Your task to perform on an android device: Add "logitech g pro" to the cart on newegg, then select checkout. Image 0: 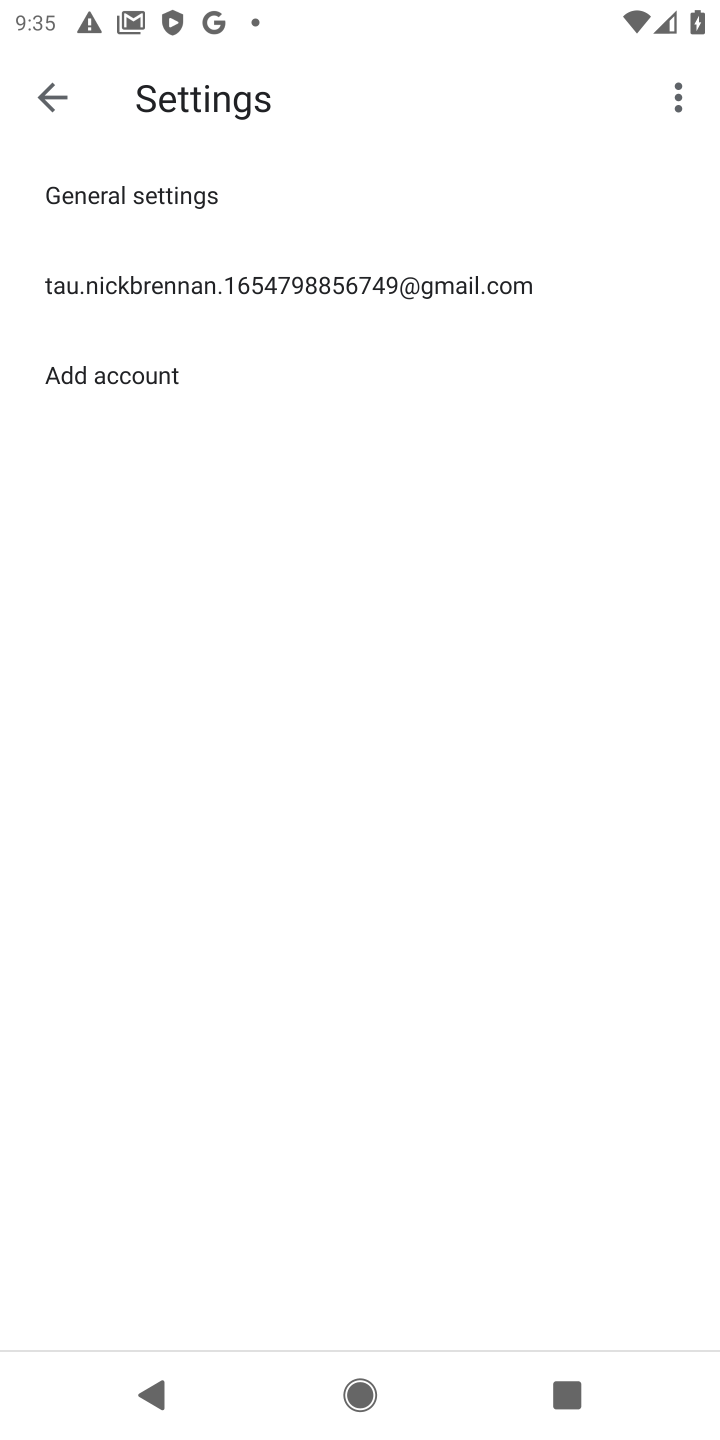
Step 0: press home button
Your task to perform on an android device: Add "logitech g pro" to the cart on newegg, then select checkout. Image 1: 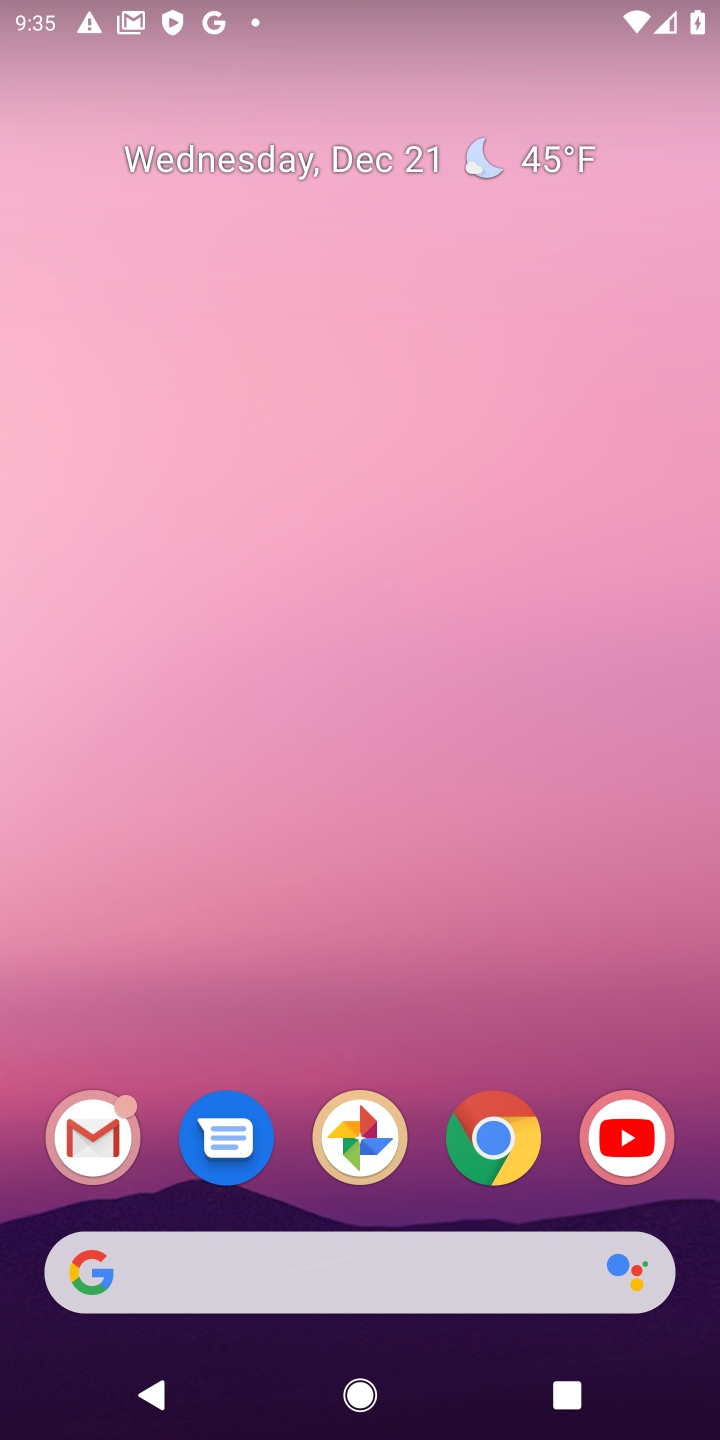
Step 1: click (486, 1147)
Your task to perform on an android device: Add "logitech g pro" to the cart on newegg, then select checkout. Image 2: 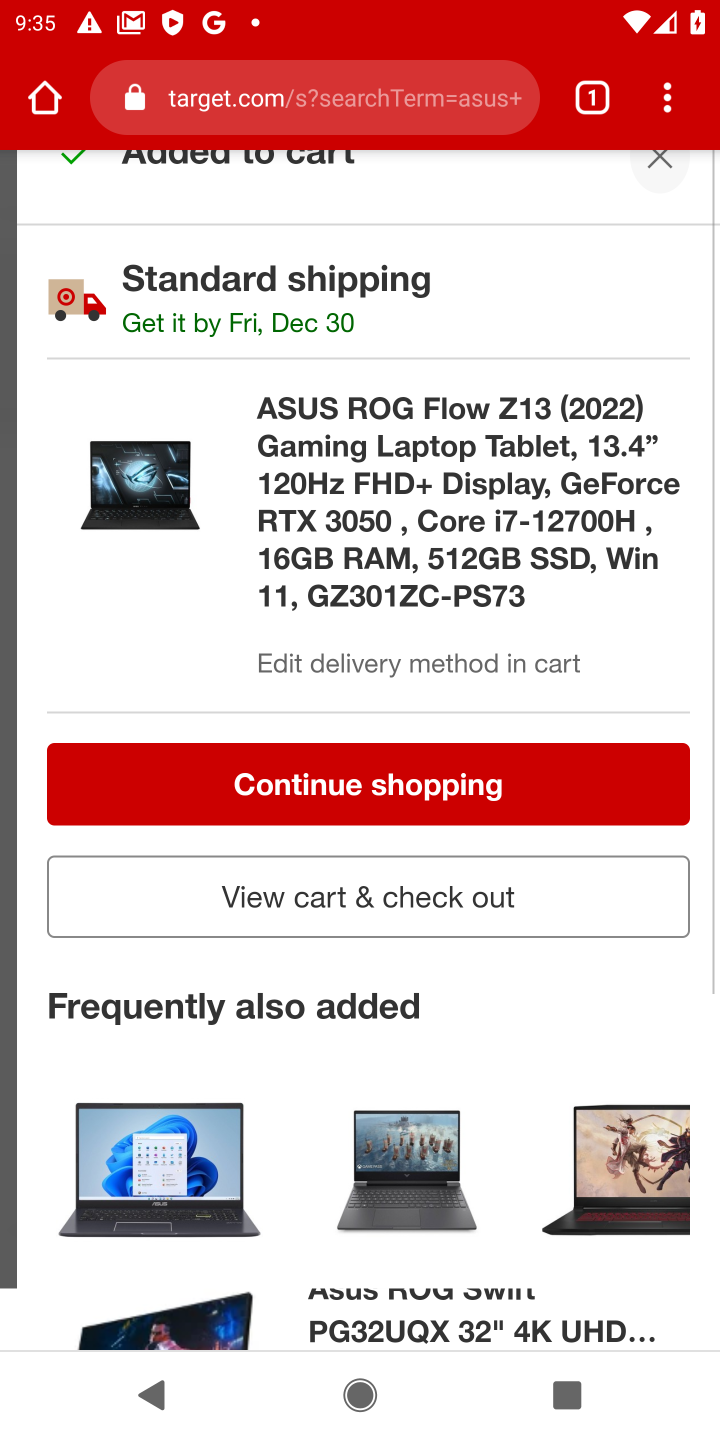
Step 2: click (347, 98)
Your task to perform on an android device: Add "logitech g pro" to the cart on newegg, then select checkout. Image 3: 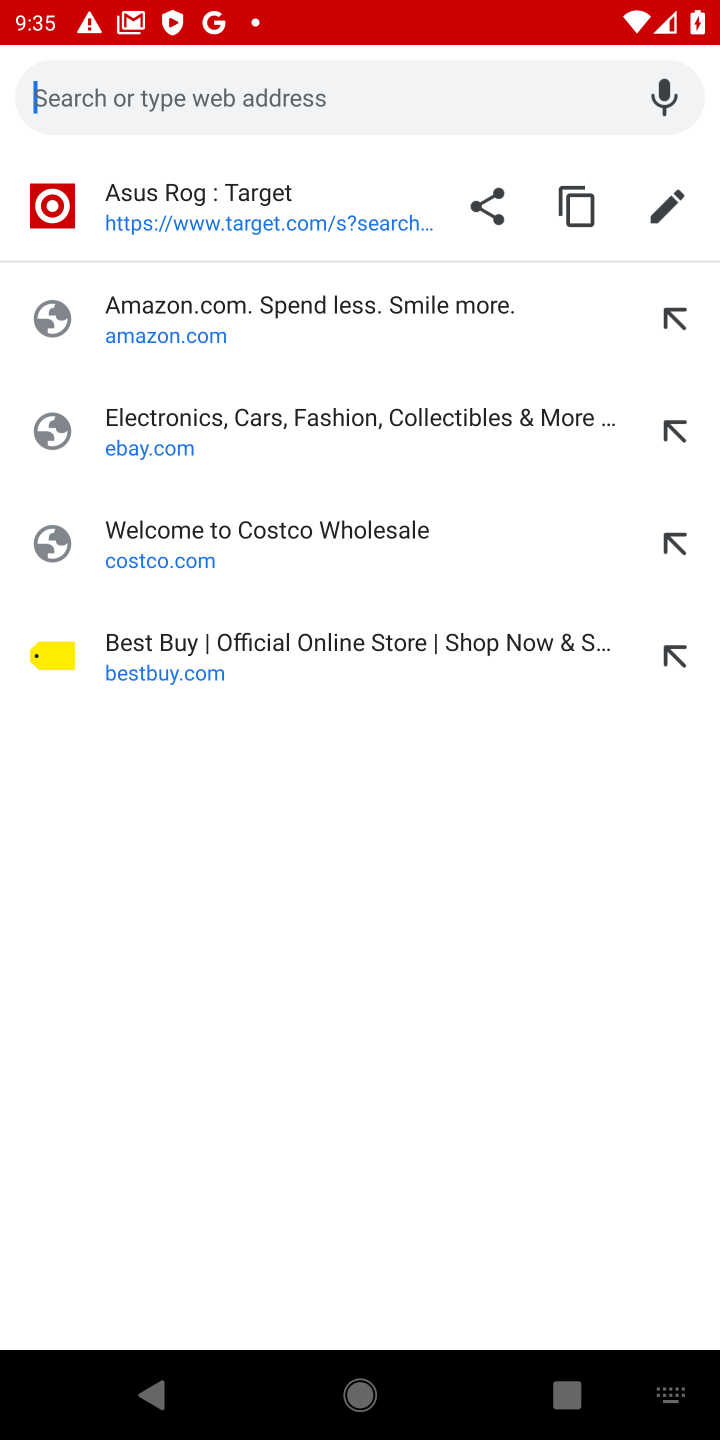
Step 3: type "newegg.com"
Your task to perform on an android device: Add "logitech g pro" to the cart on newegg, then select checkout. Image 4: 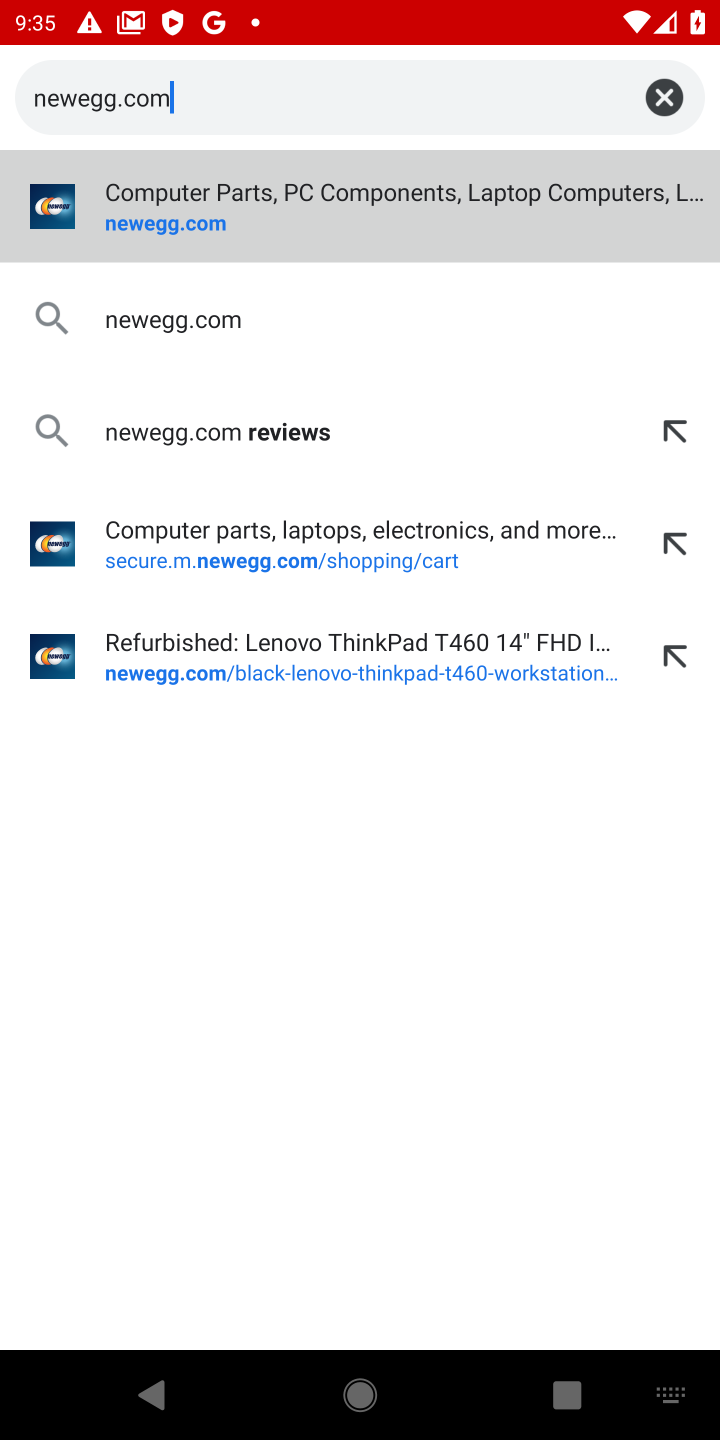
Step 4: click (158, 229)
Your task to perform on an android device: Add "logitech g pro" to the cart on newegg, then select checkout. Image 5: 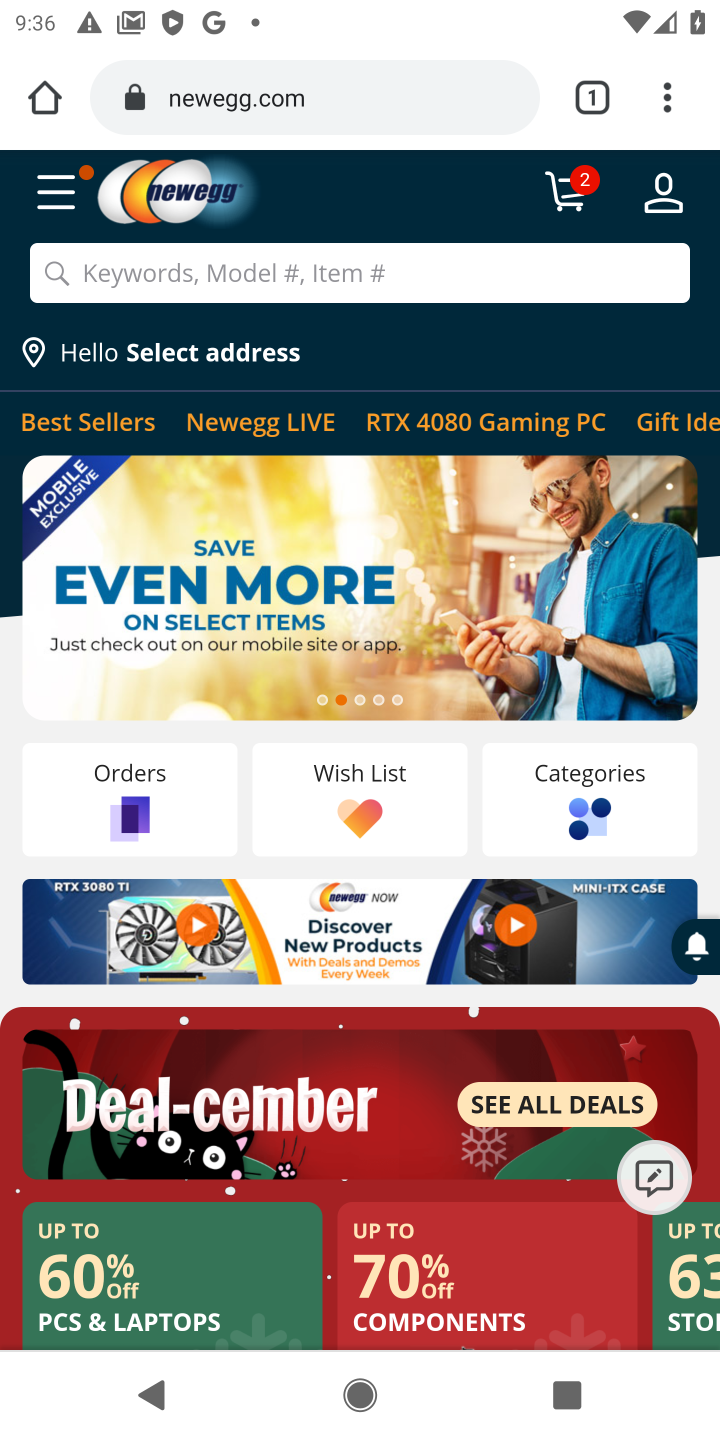
Step 5: click (247, 270)
Your task to perform on an android device: Add "logitech g pro" to the cart on newegg, then select checkout. Image 6: 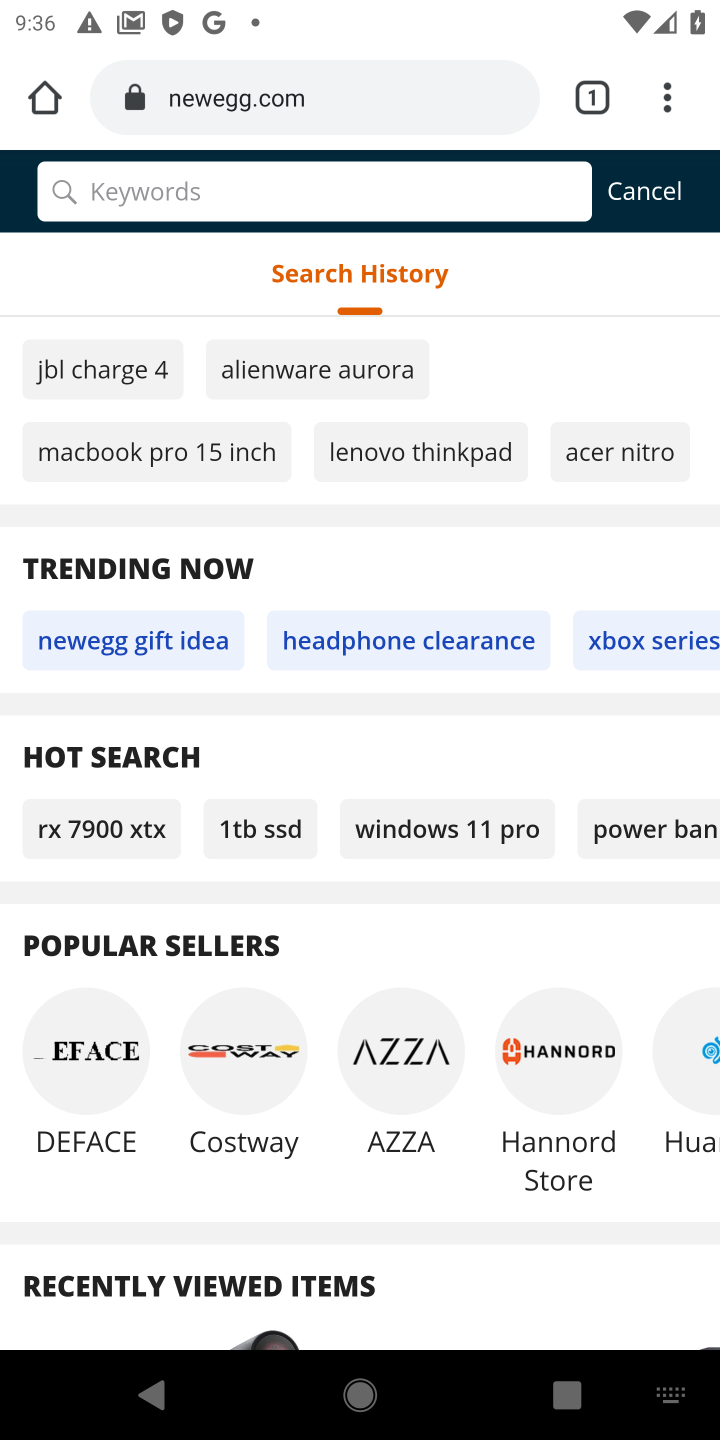
Step 6: type "logitech g pro"
Your task to perform on an android device: Add "logitech g pro" to the cart on newegg, then select checkout. Image 7: 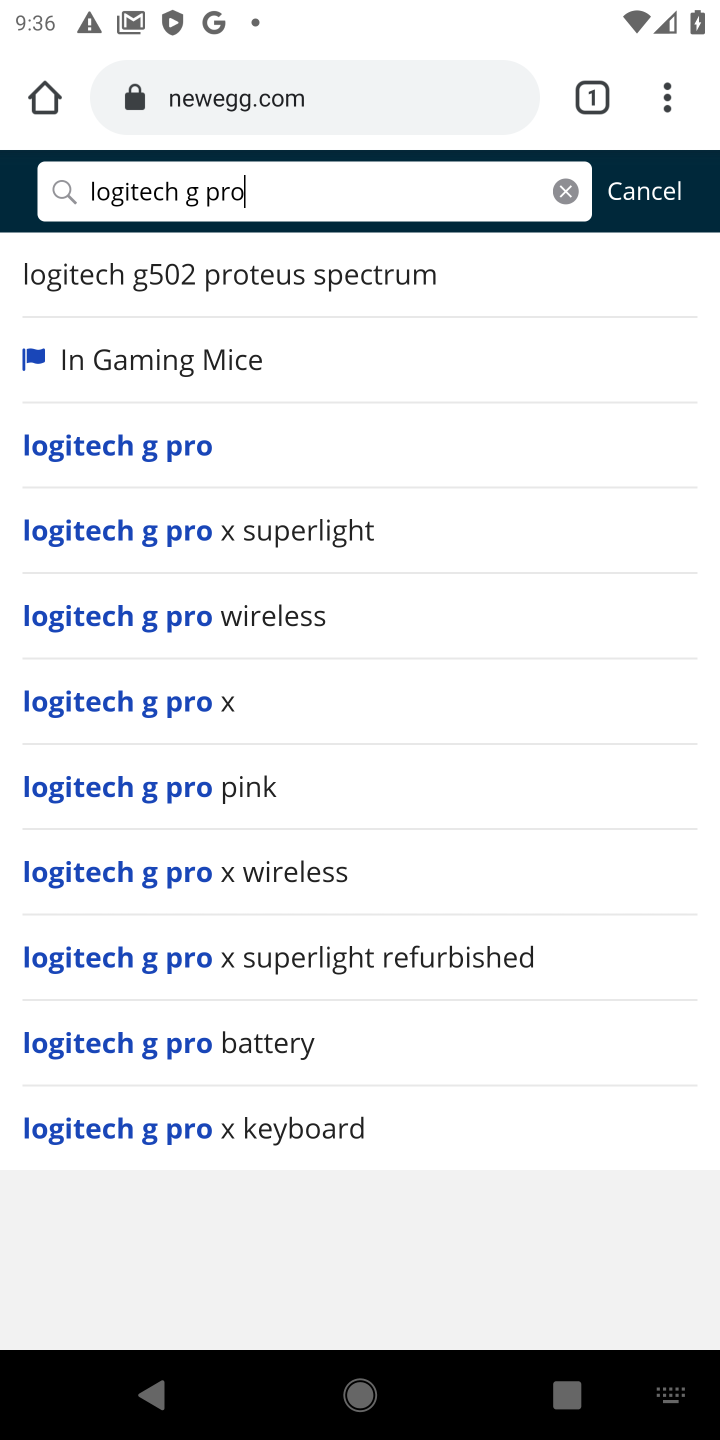
Step 7: click (136, 457)
Your task to perform on an android device: Add "logitech g pro" to the cart on newegg, then select checkout. Image 8: 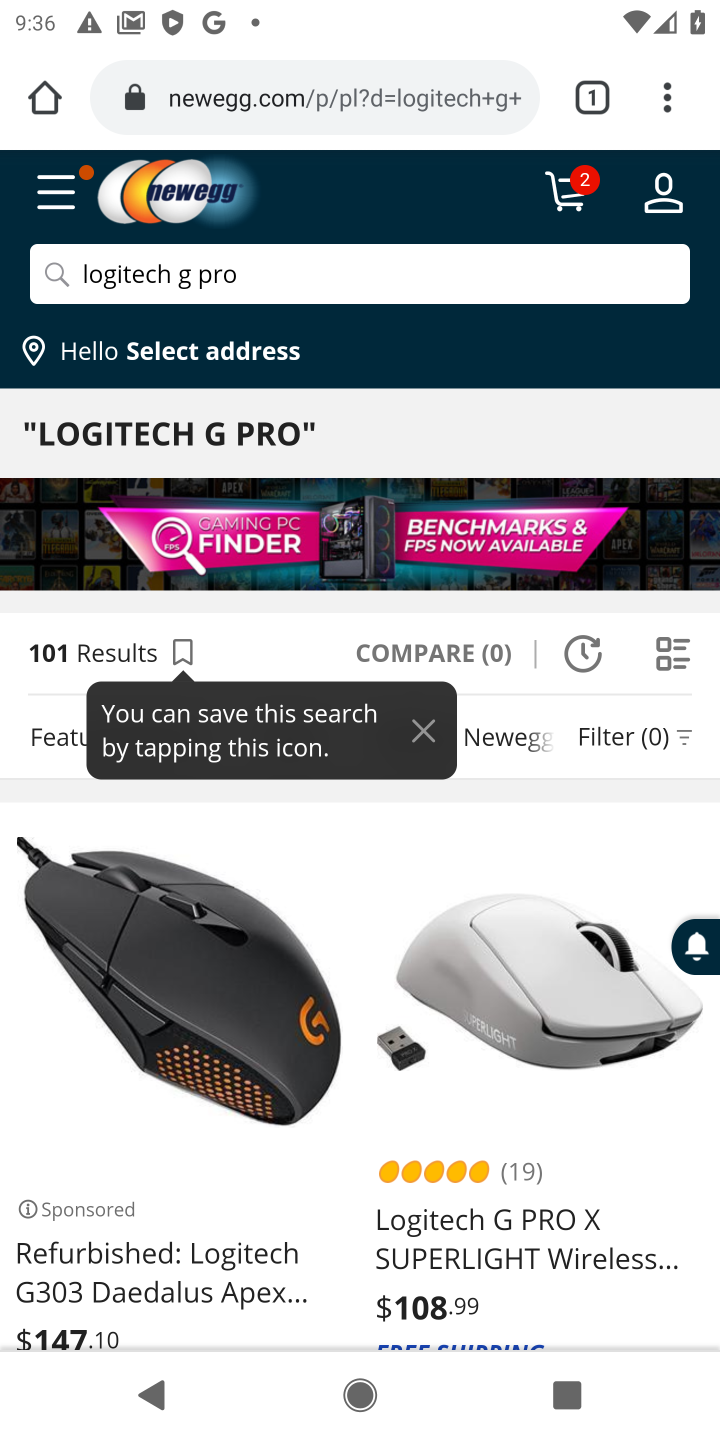
Step 8: drag from (253, 919) to (249, 517)
Your task to perform on an android device: Add "logitech g pro" to the cart on newegg, then select checkout. Image 9: 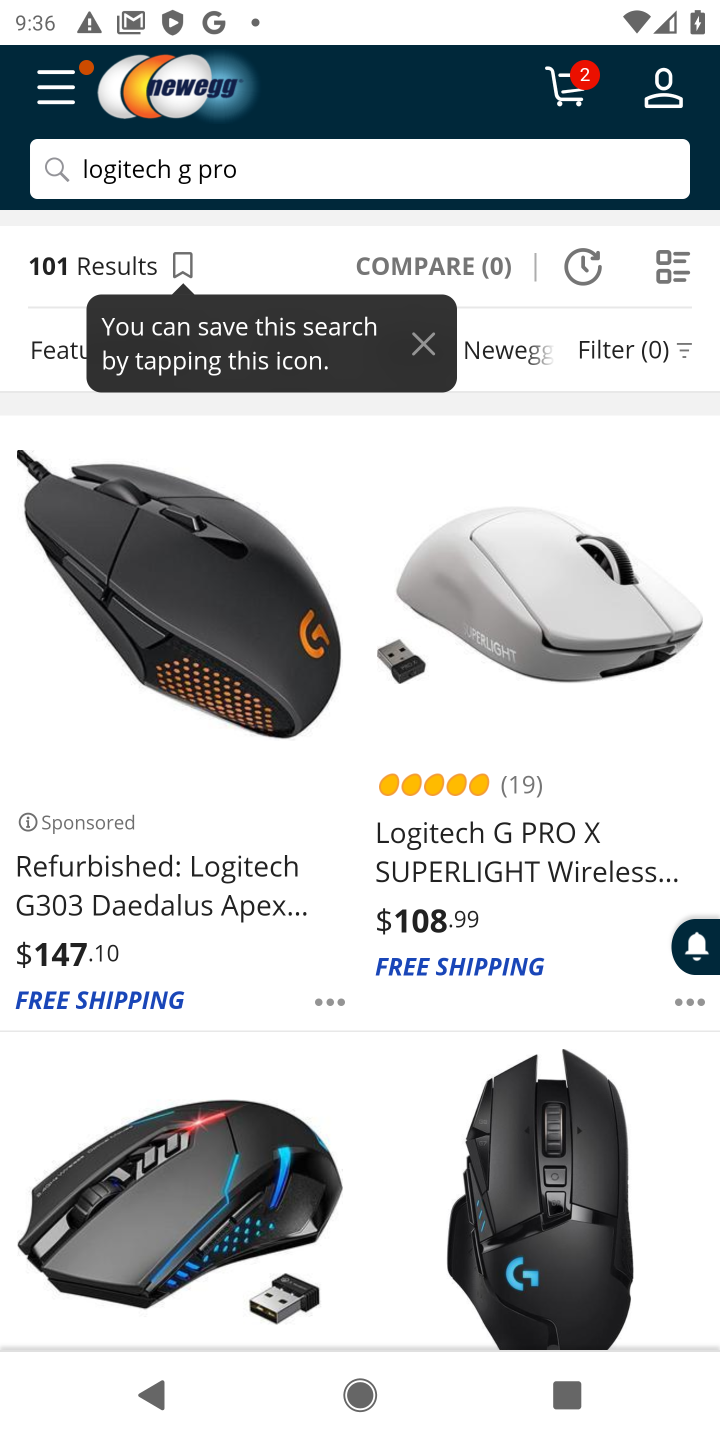
Step 9: click (469, 867)
Your task to perform on an android device: Add "logitech g pro" to the cart on newegg, then select checkout. Image 10: 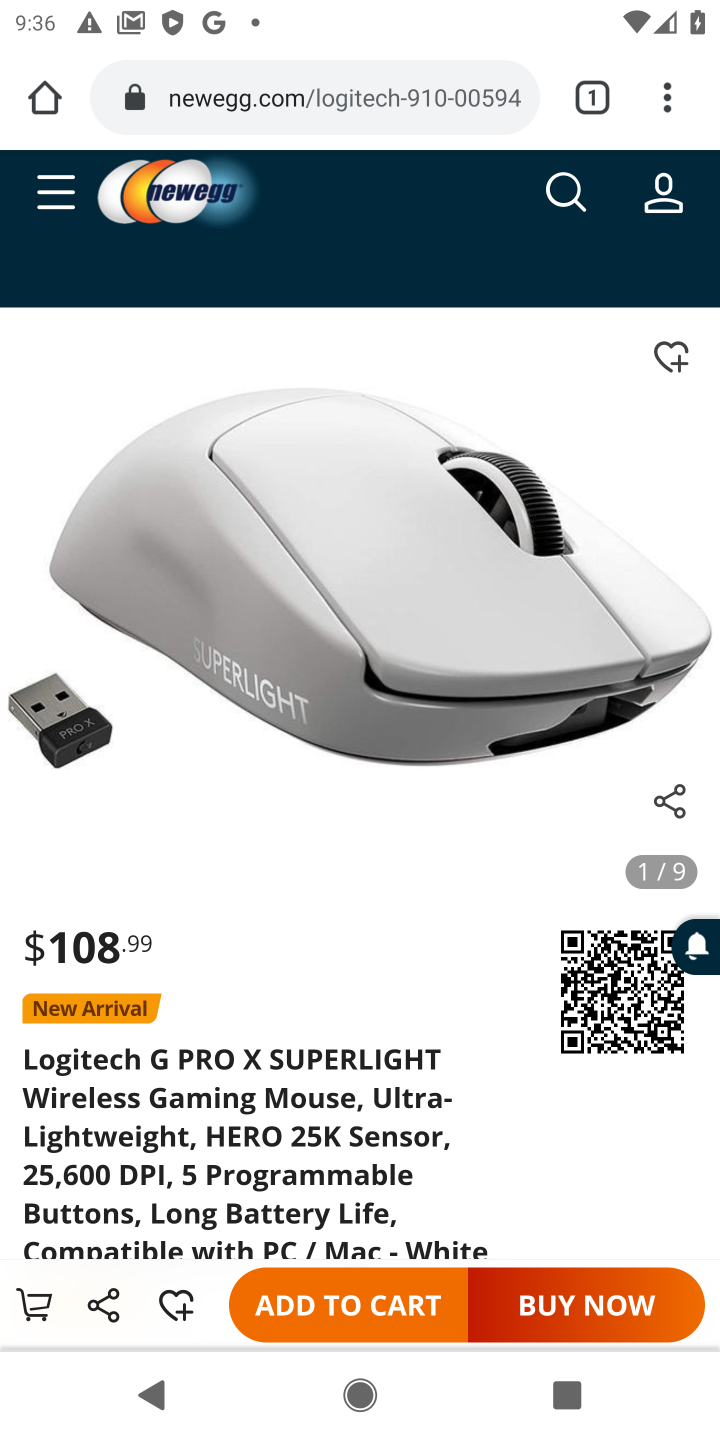
Step 10: click (363, 1312)
Your task to perform on an android device: Add "logitech g pro" to the cart on newegg, then select checkout. Image 11: 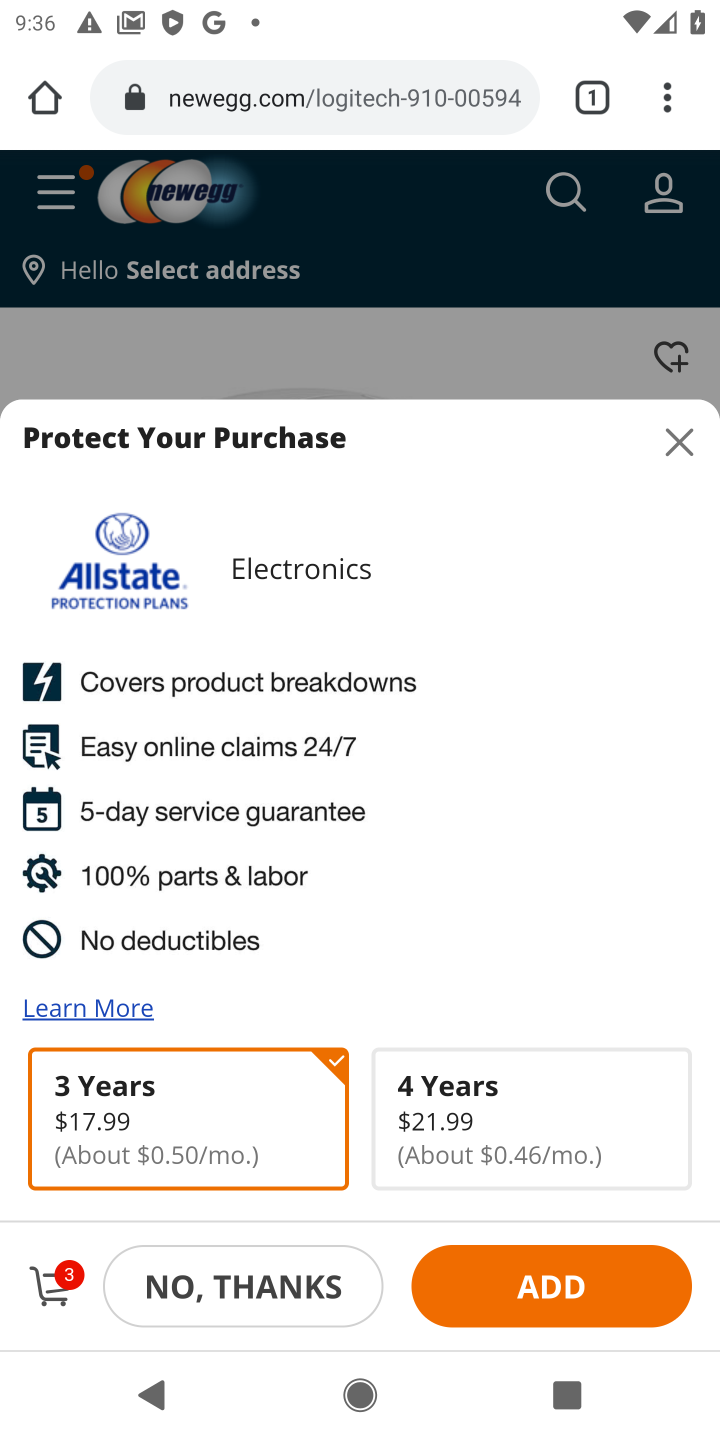
Step 11: click (62, 1277)
Your task to perform on an android device: Add "logitech g pro" to the cart on newegg, then select checkout. Image 12: 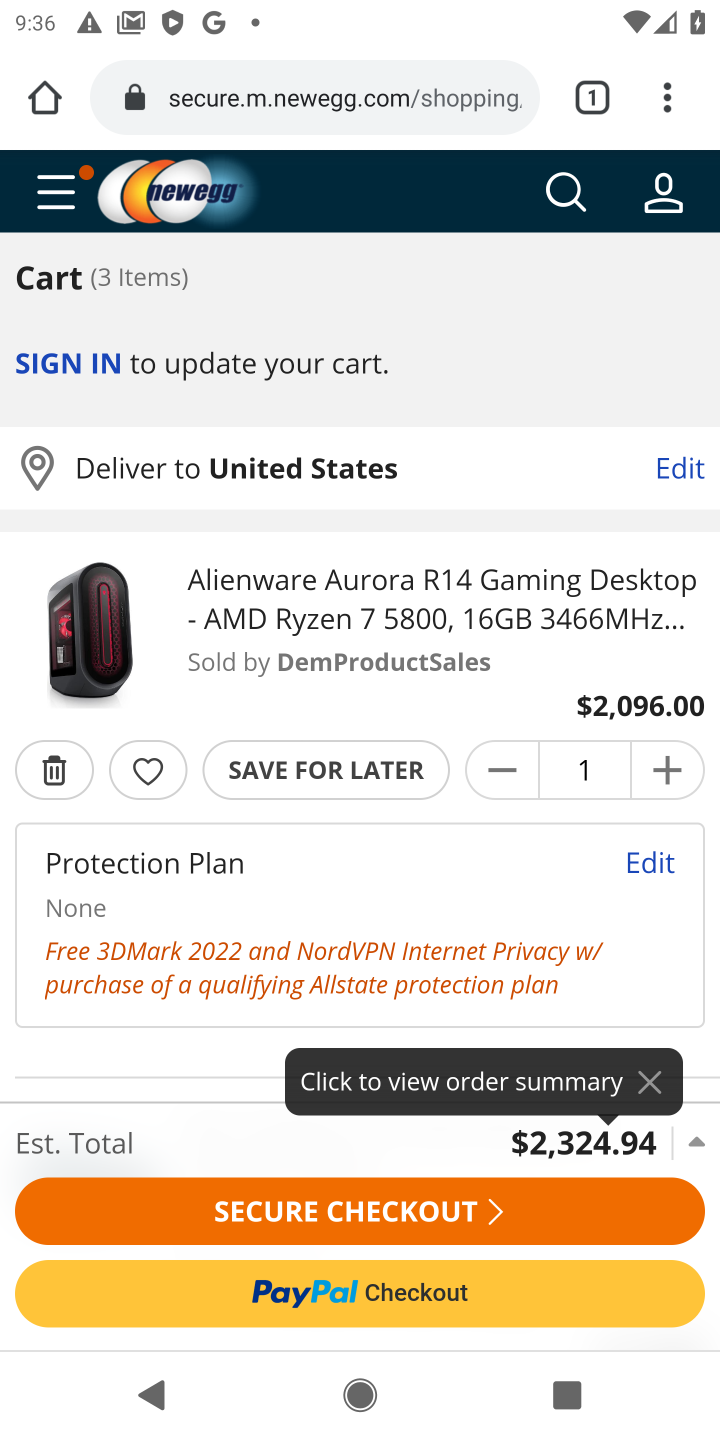
Step 12: click (333, 1216)
Your task to perform on an android device: Add "logitech g pro" to the cart on newegg, then select checkout. Image 13: 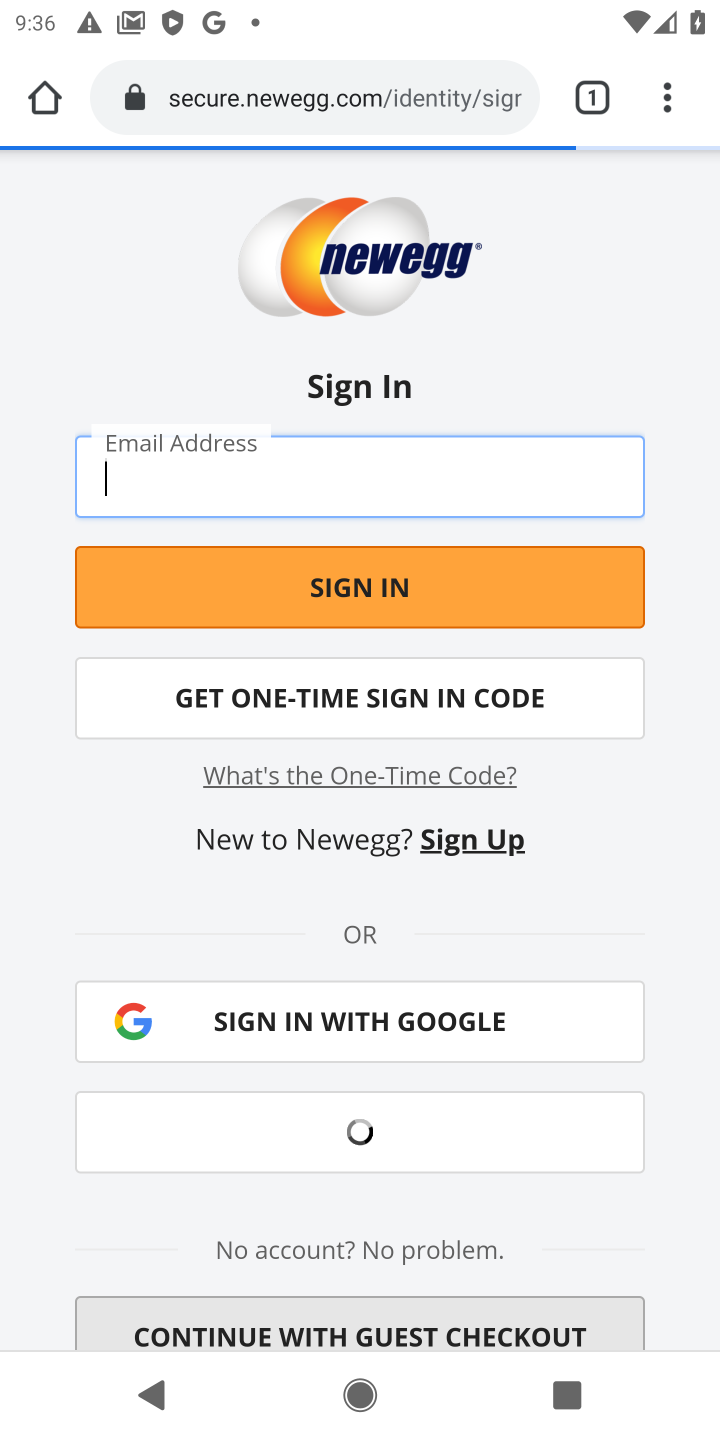
Step 13: task complete